Your task to perform on an android device: Go to Yahoo.com Image 0: 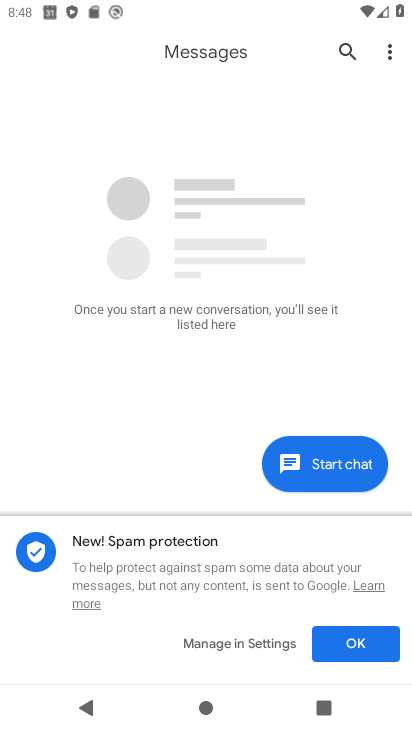
Step 0: press home button
Your task to perform on an android device: Go to Yahoo.com Image 1: 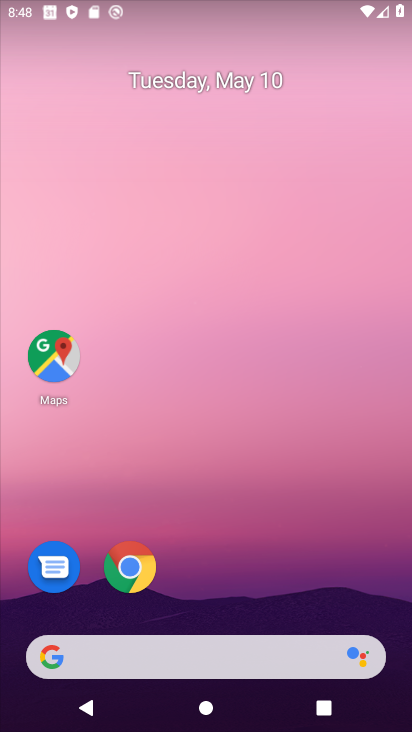
Step 1: click (137, 546)
Your task to perform on an android device: Go to Yahoo.com Image 2: 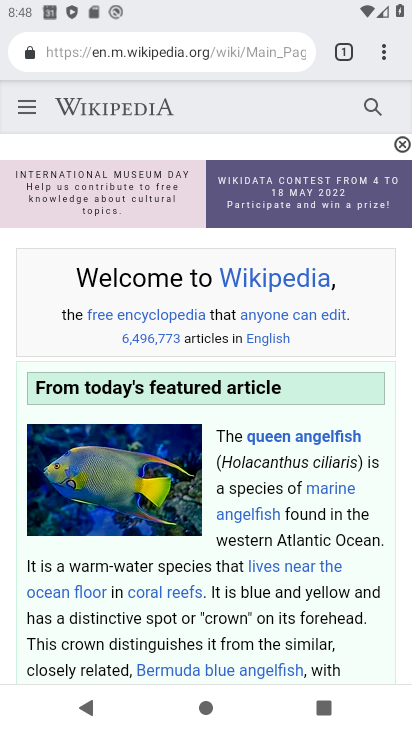
Step 2: click (153, 48)
Your task to perform on an android device: Go to Yahoo.com Image 3: 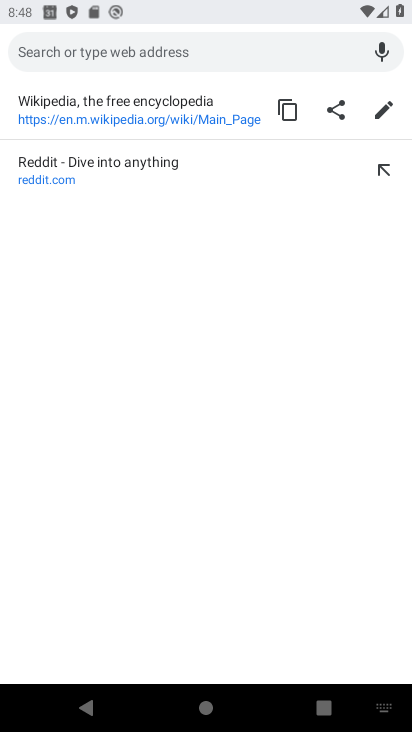
Step 3: type "yahoo.com"
Your task to perform on an android device: Go to Yahoo.com Image 4: 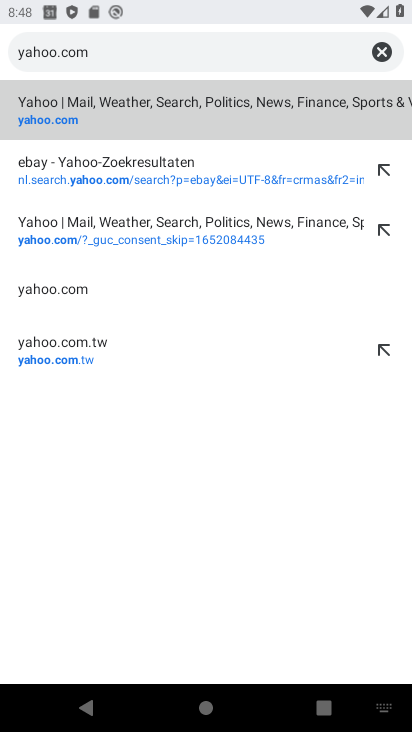
Step 4: click (29, 124)
Your task to perform on an android device: Go to Yahoo.com Image 5: 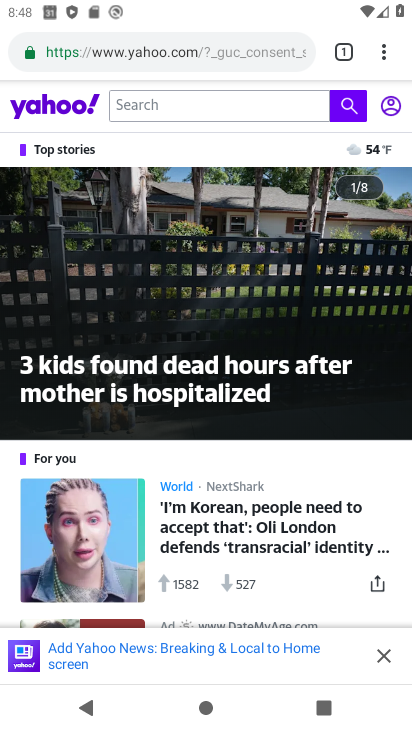
Step 5: task complete